Your task to perform on an android device: Go to Google Image 0: 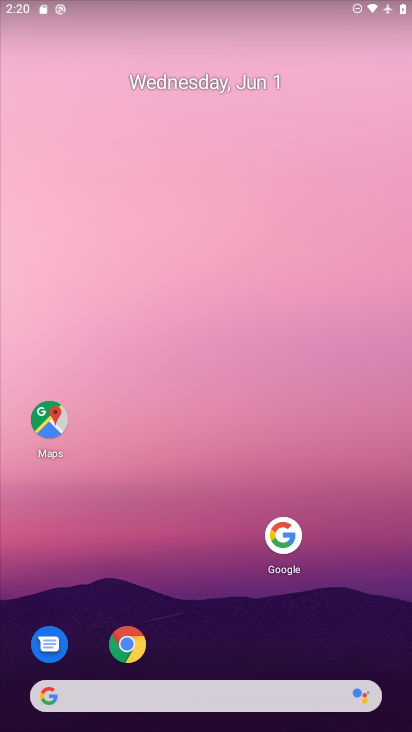
Step 0: press home button
Your task to perform on an android device: Go to Google Image 1: 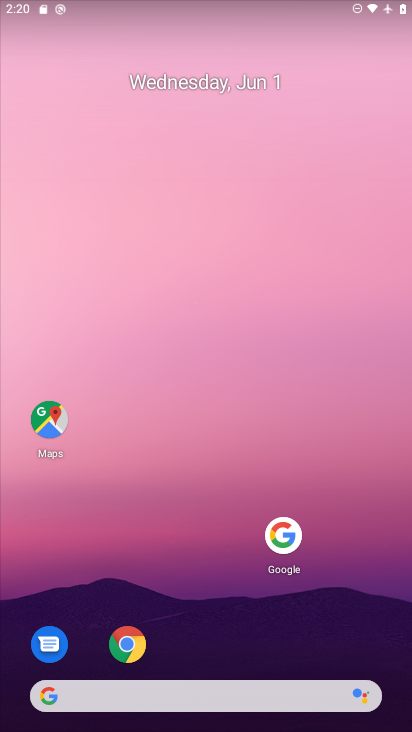
Step 1: click (289, 535)
Your task to perform on an android device: Go to Google Image 2: 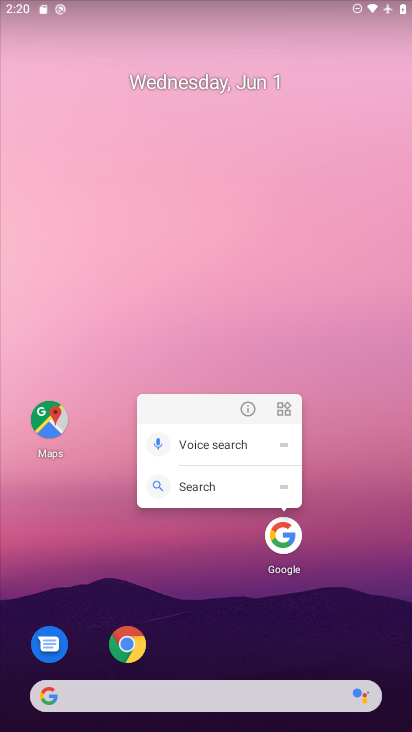
Step 2: click (283, 536)
Your task to perform on an android device: Go to Google Image 3: 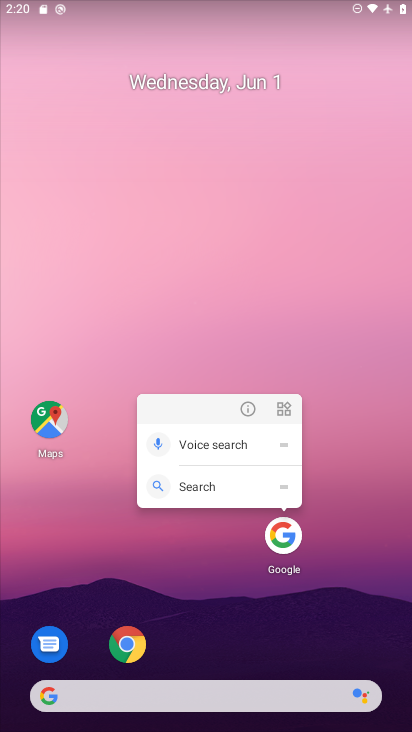
Step 3: click (287, 535)
Your task to perform on an android device: Go to Google Image 4: 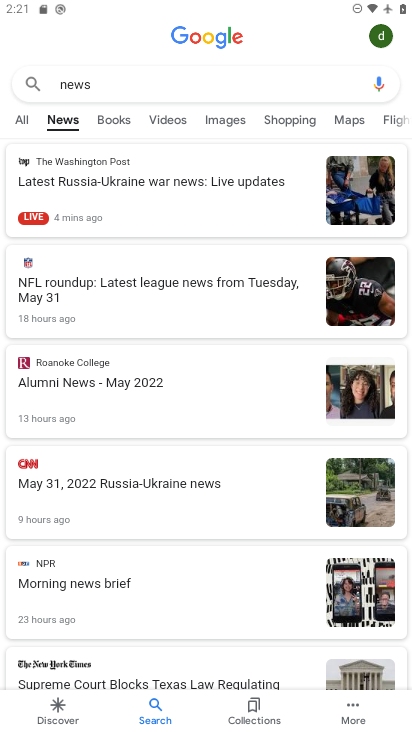
Step 4: task complete